Your task to perform on an android device: Go to Yahoo.com Image 0: 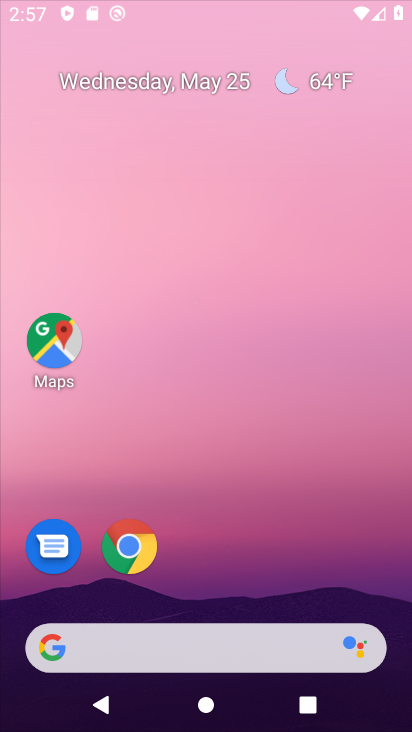
Step 0: drag from (117, 139) to (157, 83)
Your task to perform on an android device: Go to Yahoo.com Image 1: 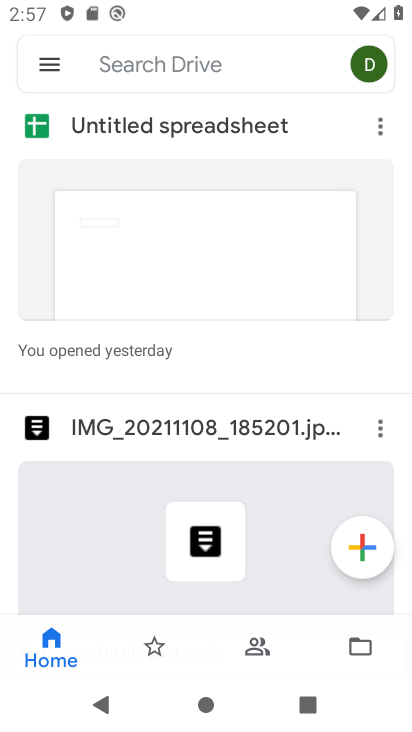
Step 1: press home button
Your task to perform on an android device: Go to Yahoo.com Image 2: 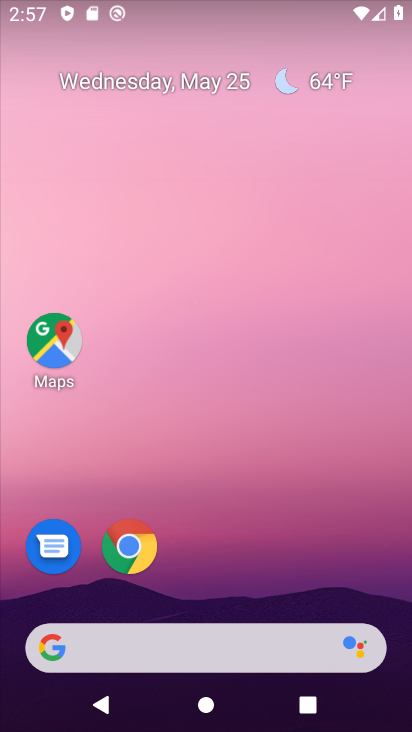
Step 2: click (139, 556)
Your task to perform on an android device: Go to Yahoo.com Image 3: 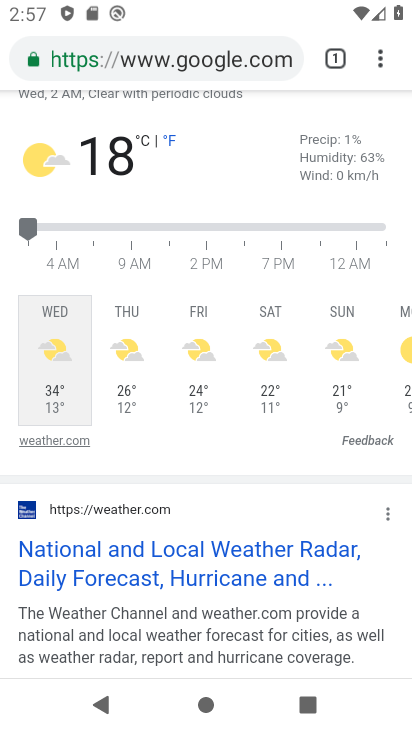
Step 3: click (328, 54)
Your task to perform on an android device: Go to Yahoo.com Image 4: 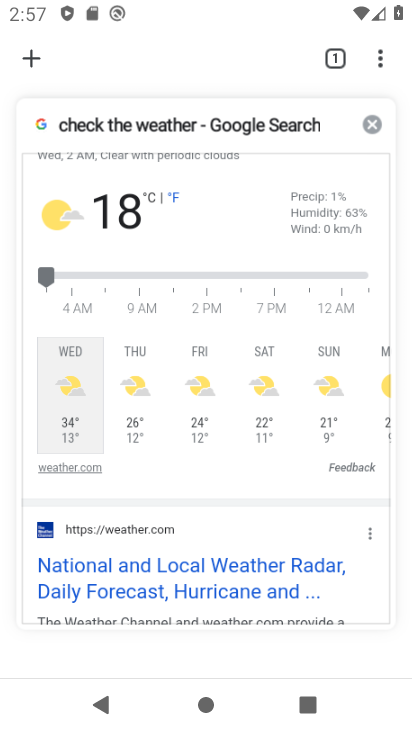
Step 4: click (39, 44)
Your task to perform on an android device: Go to Yahoo.com Image 5: 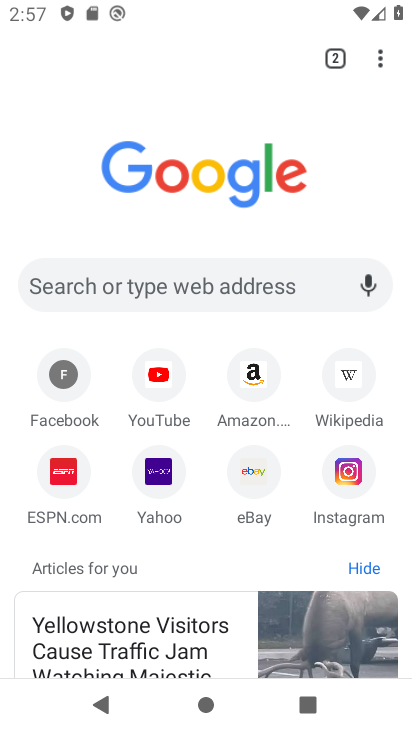
Step 5: click (166, 470)
Your task to perform on an android device: Go to Yahoo.com Image 6: 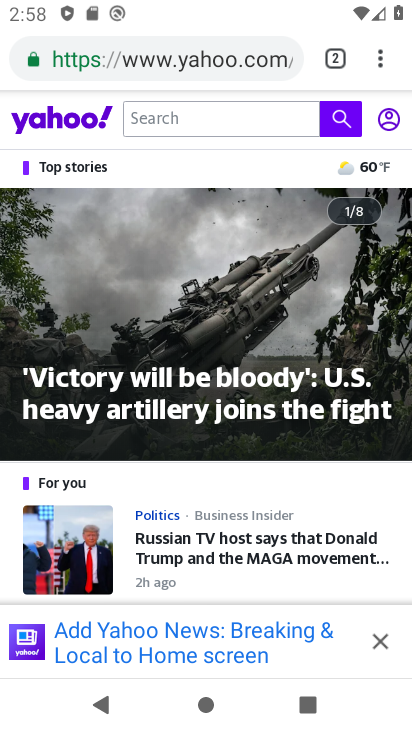
Step 6: task complete